Your task to perform on an android device: open app "Facebook Messenger" (install if not already installed) and go to login screen Image 0: 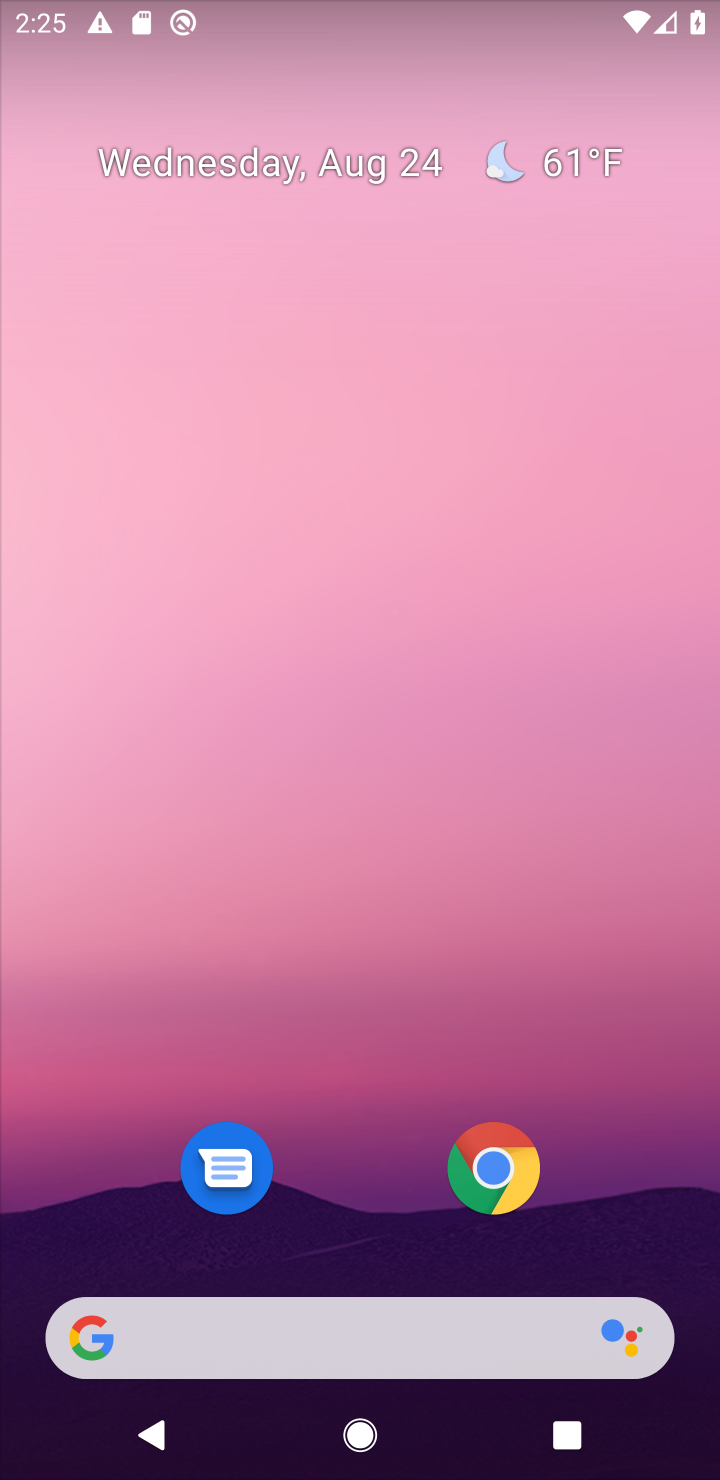
Step 0: drag from (637, 1246) to (595, 155)
Your task to perform on an android device: open app "Facebook Messenger" (install if not already installed) and go to login screen Image 1: 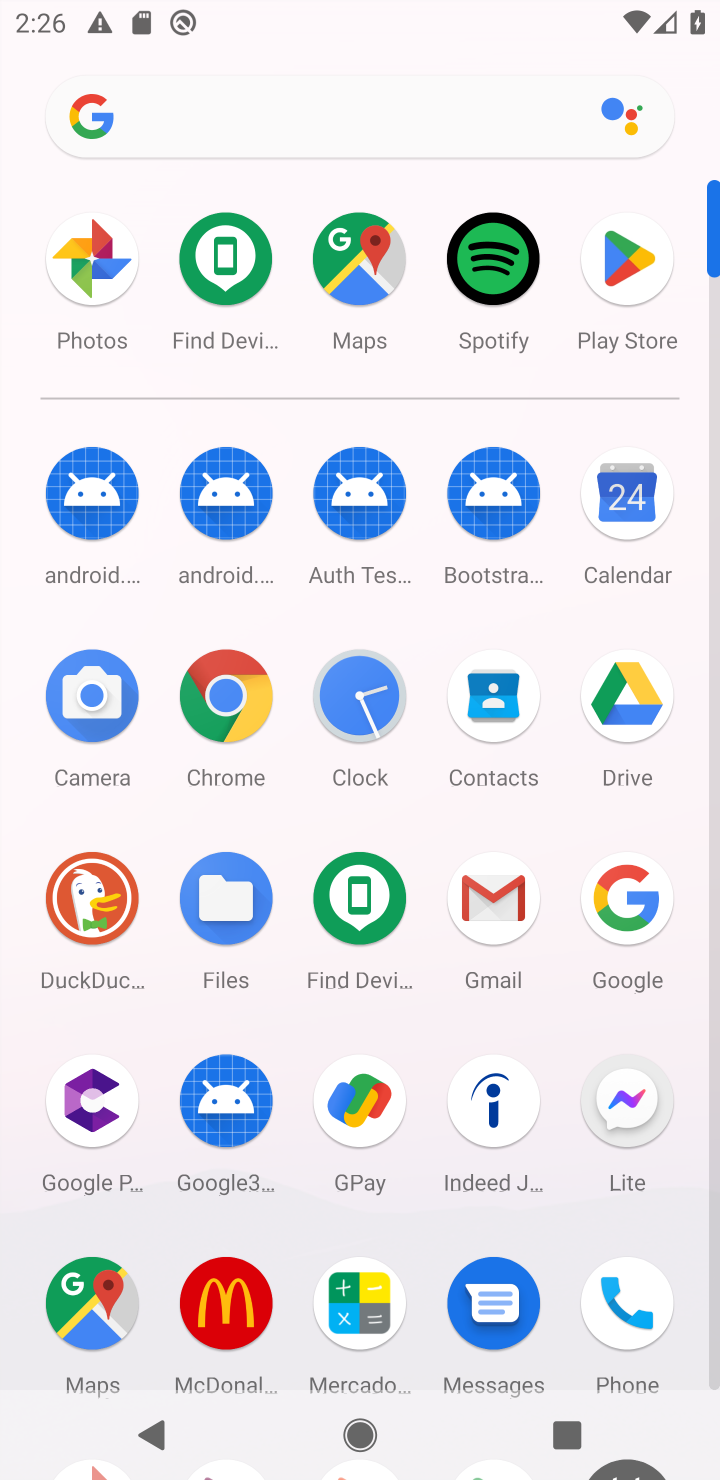
Step 1: click (623, 248)
Your task to perform on an android device: open app "Facebook Messenger" (install if not already installed) and go to login screen Image 2: 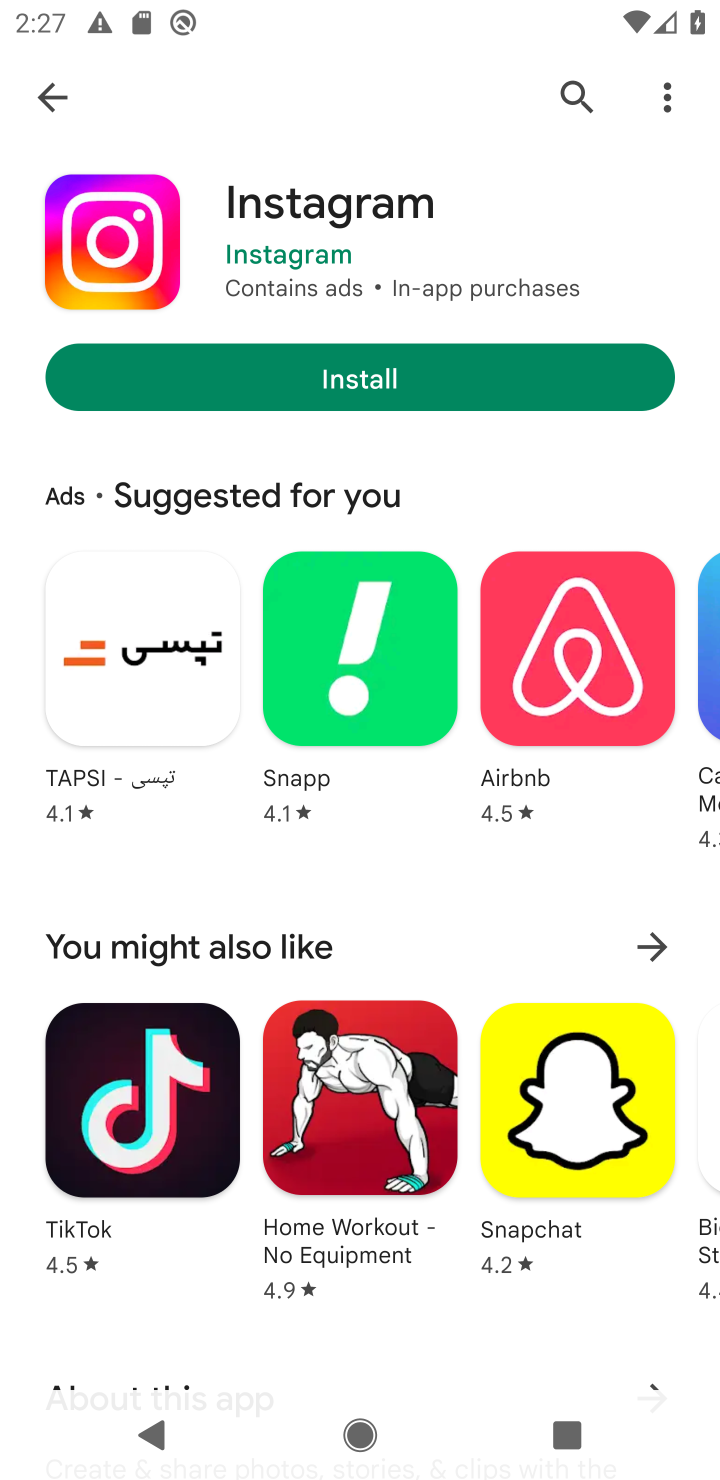
Step 2: click (564, 96)
Your task to perform on an android device: open app "Facebook Messenger" (install if not already installed) and go to login screen Image 3: 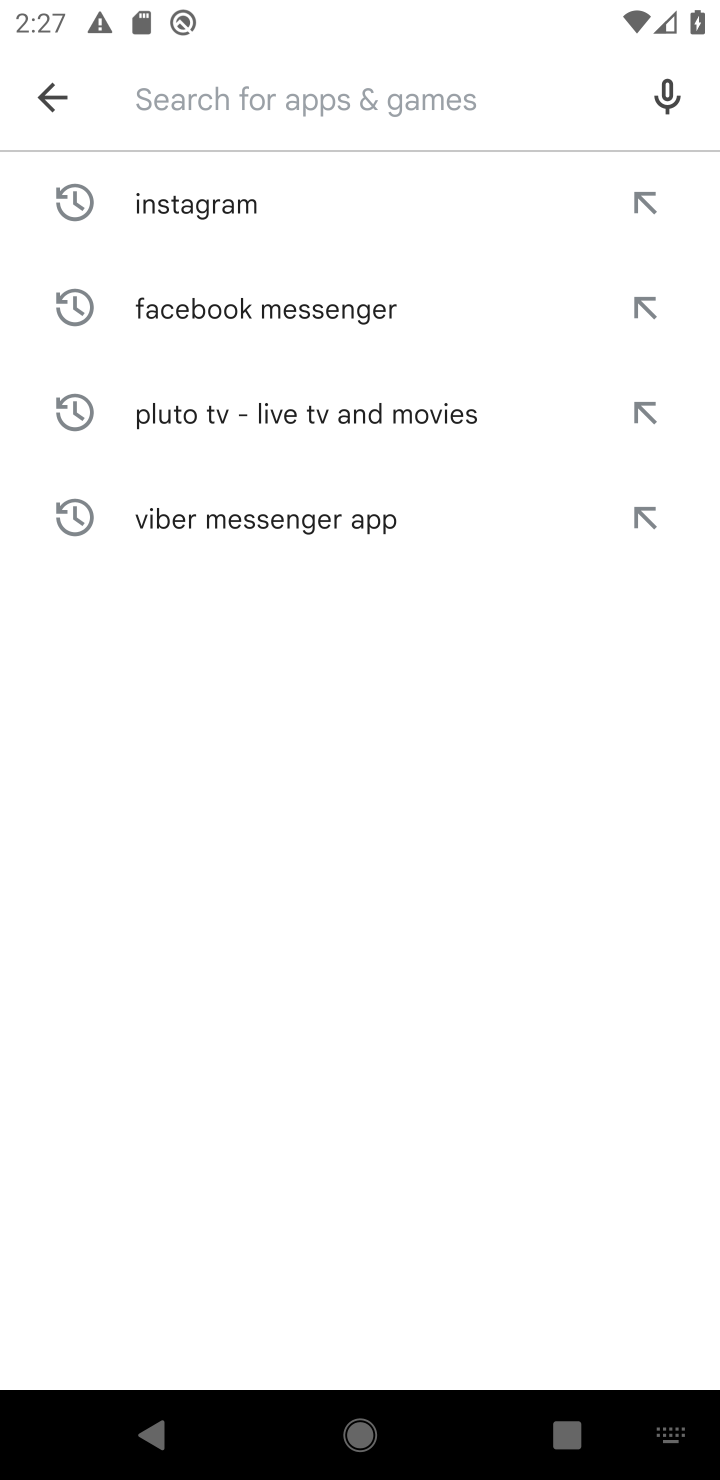
Step 3: type "Facebook Messenge"
Your task to perform on an android device: open app "Facebook Messenger" (install if not already installed) and go to login screen Image 4: 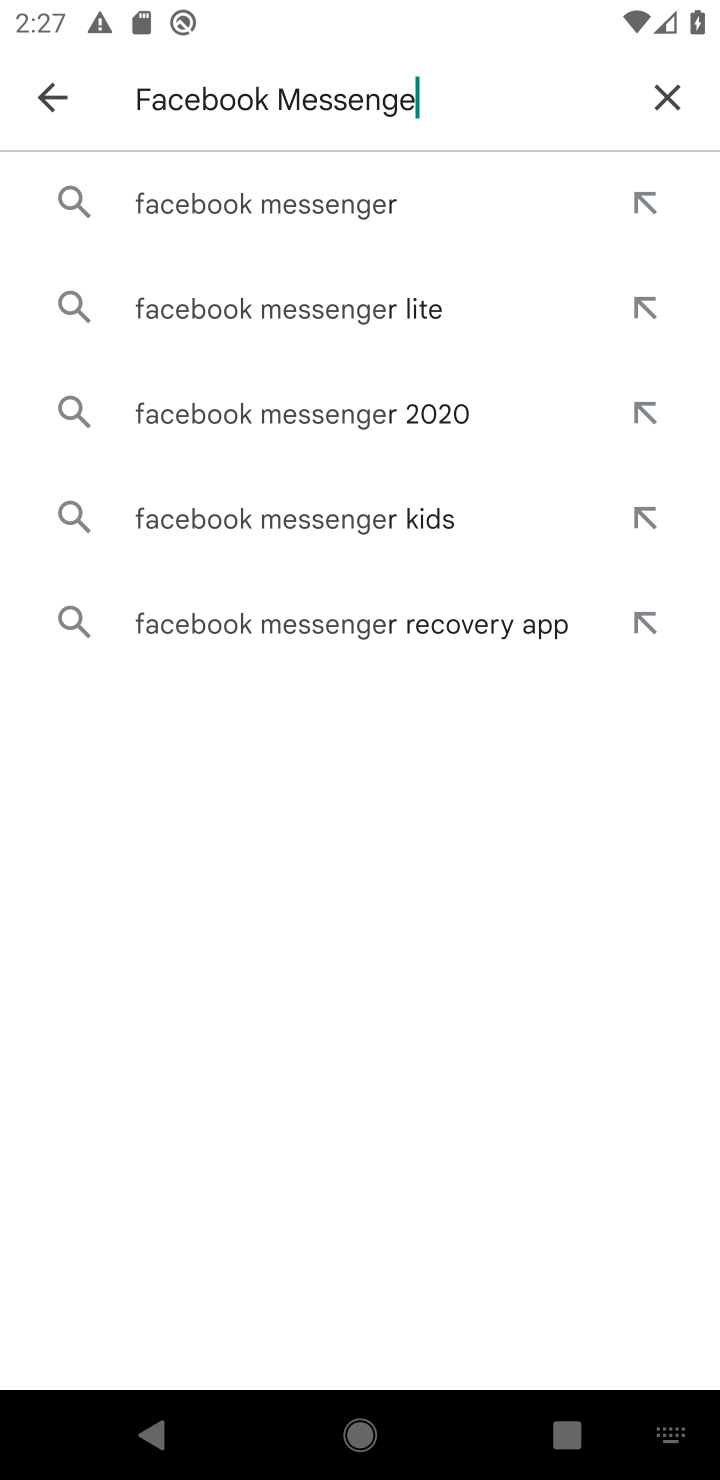
Step 4: click (195, 186)
Your task to perform on an android device: open app "Facebook Messenger" (install if not already installed) and go to login screen Image 5: 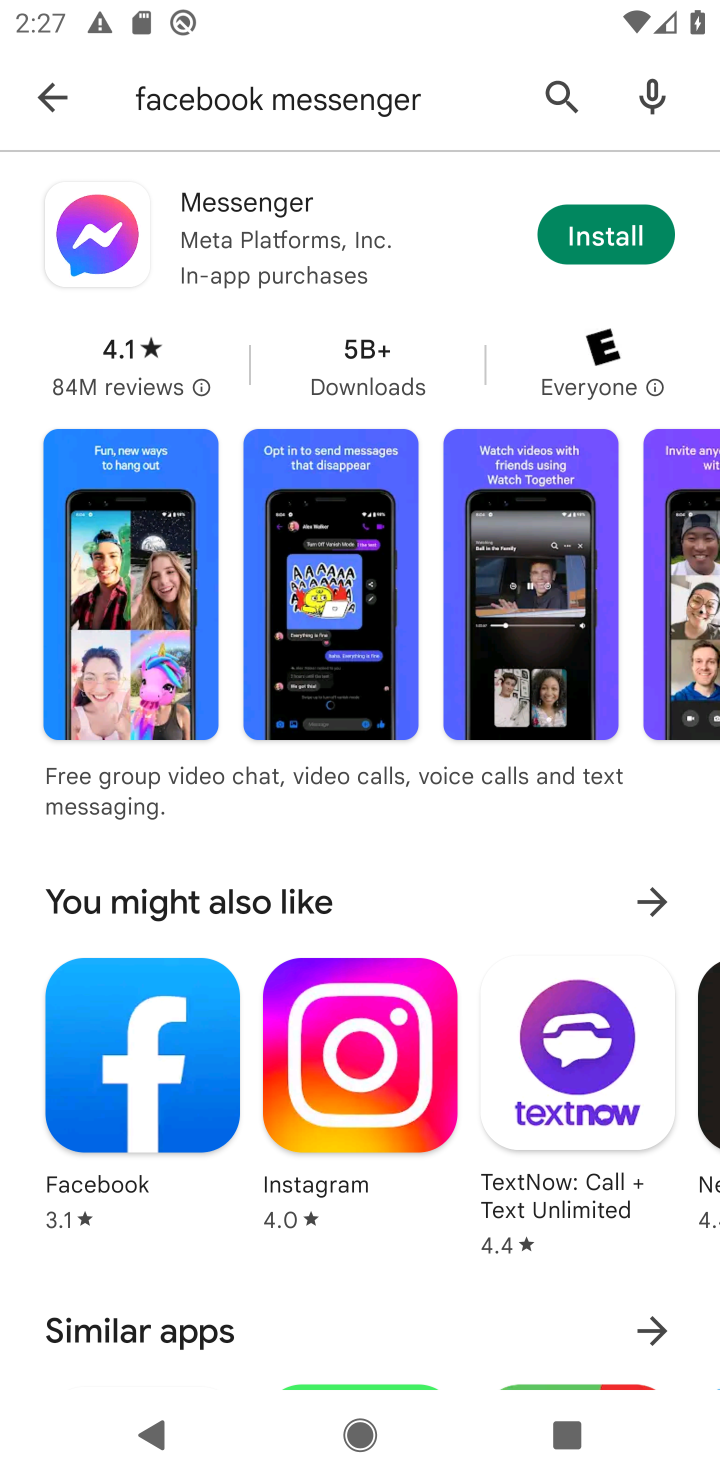
Step 5: click (255, 223)
Your task to perform on an android device: open app "Facebook Messenger" (install if not already installed) and go to login screen Image 6: 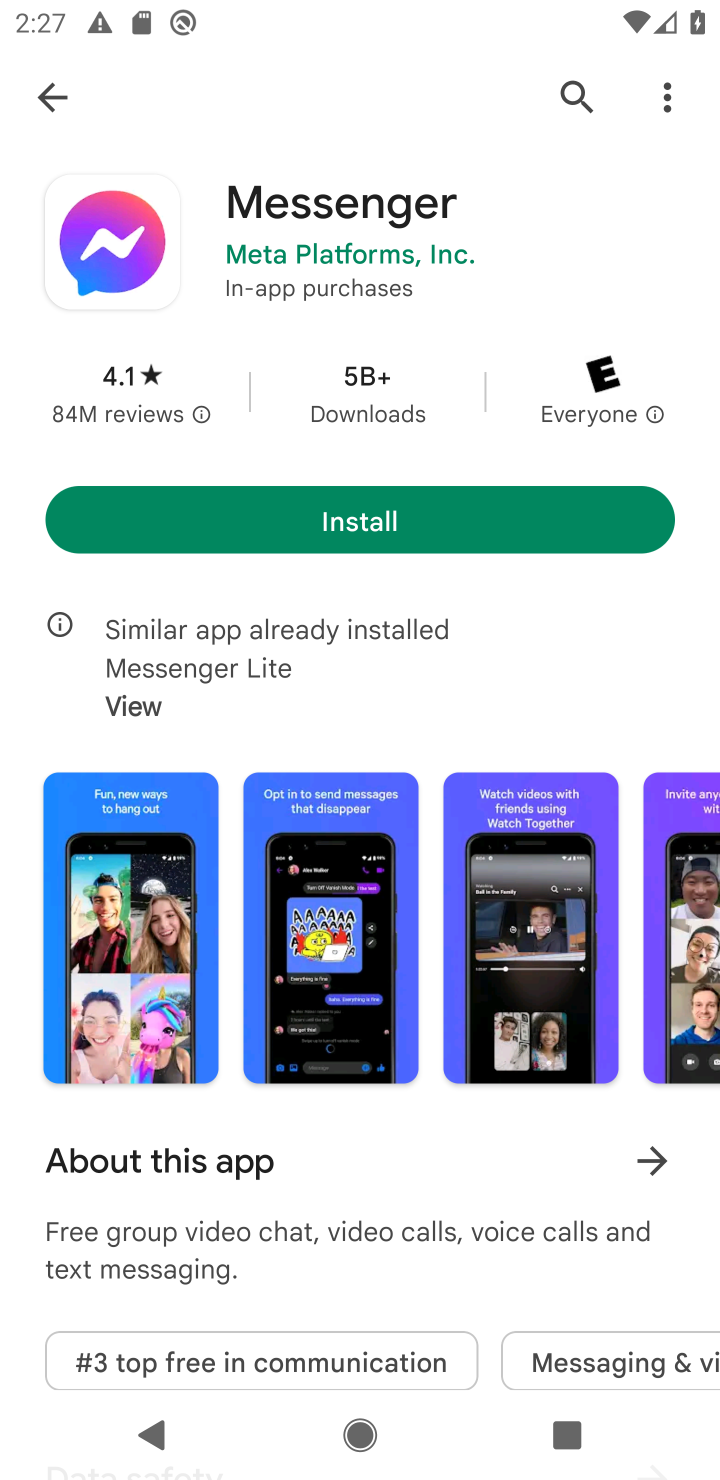
Step 6: click (357, 526)
Your task to perform on an android device: open app "Facebook Messenger" (install if not already installed) and go to login screen Image 7: 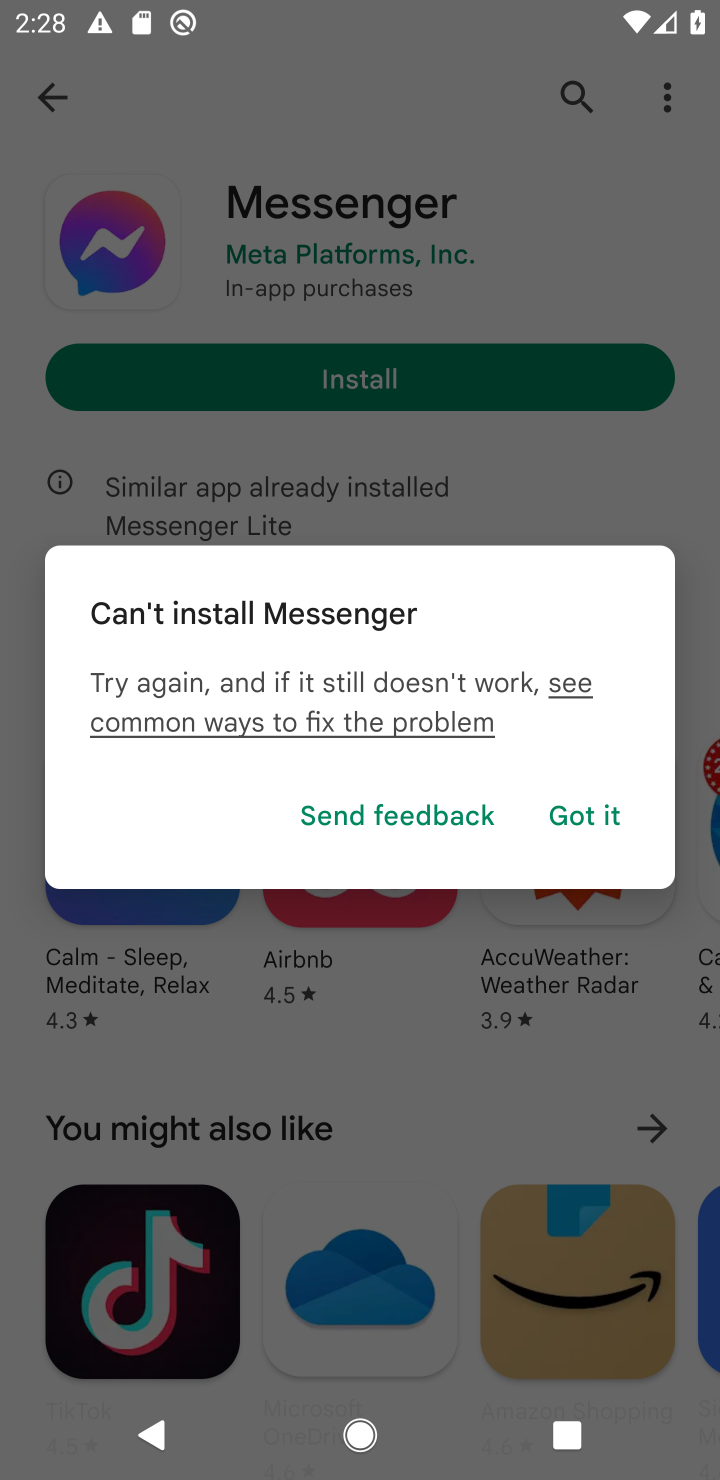
Step 7: click (568, 814)
Your task to perform on an android device: open app "Facebook Messenger" (install if not already installed) and go to login screen Image 8: 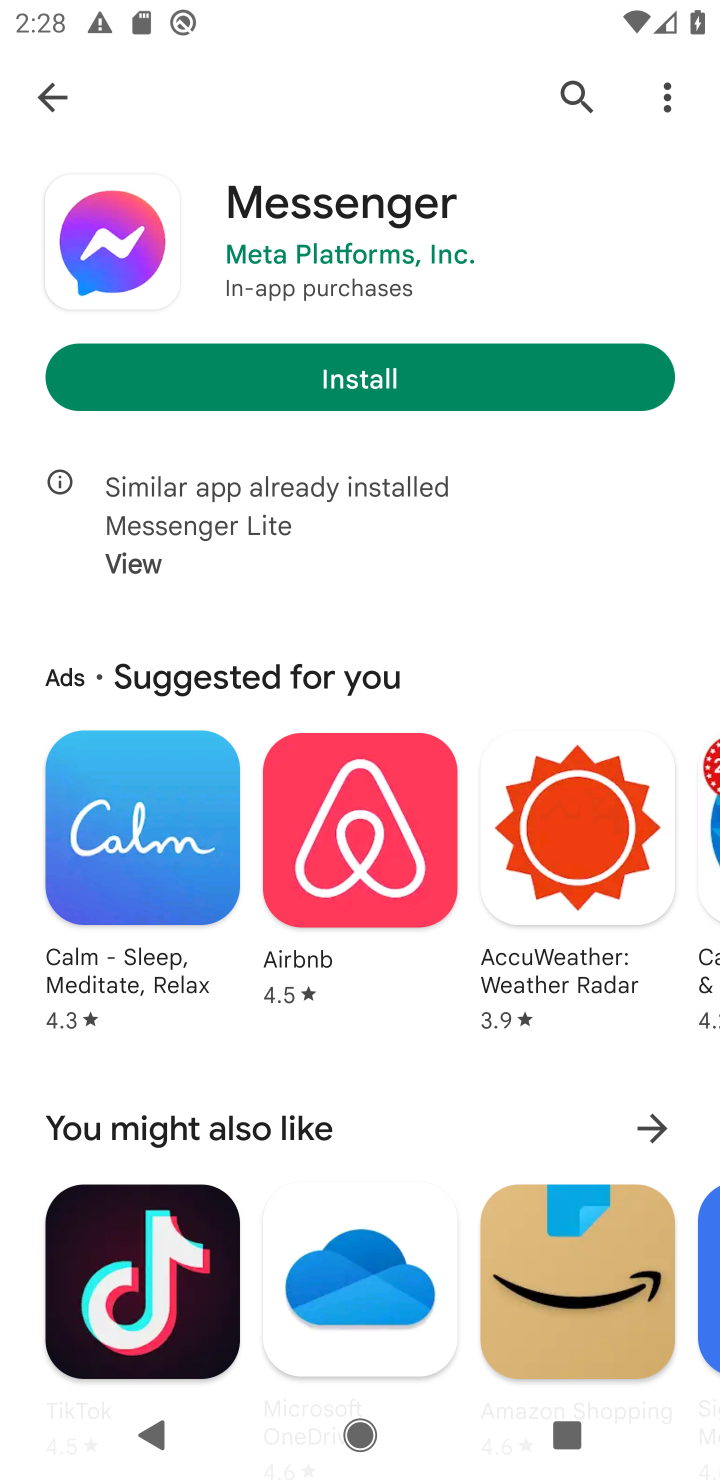
Step 8: task complete